Your task to perform on an android device: see tabs open on other devices in the chrome app Image 0: 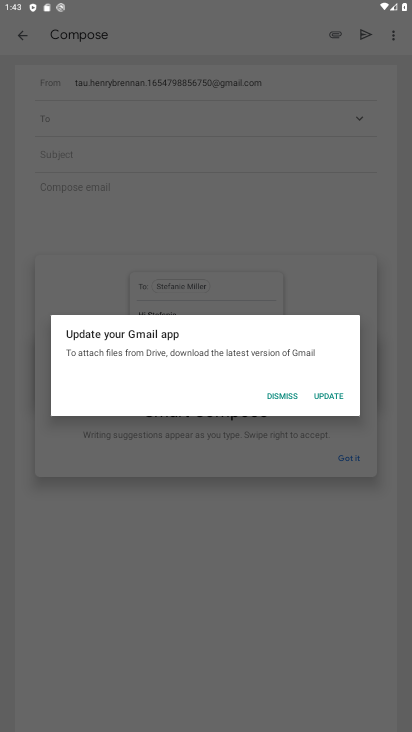
Step 0: press home button
Your task to perform on an android device: see tabs open on other devices in the chrome app Image 1: 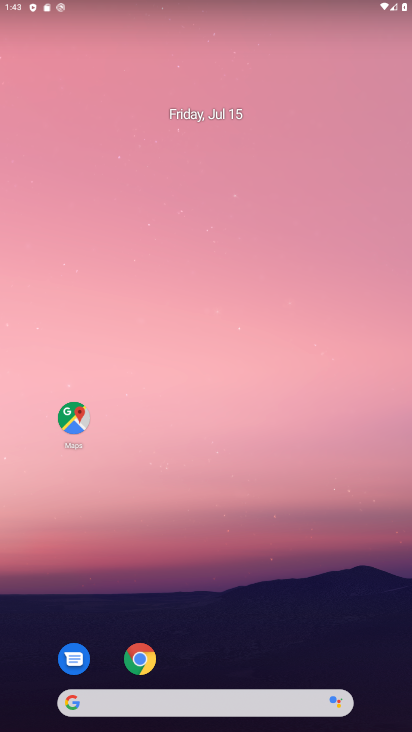
Step 1: drag from (138, 691) to (161, 373)
Your task to perform on an android device: see tabs open on other devices in the chrome app Image 2: 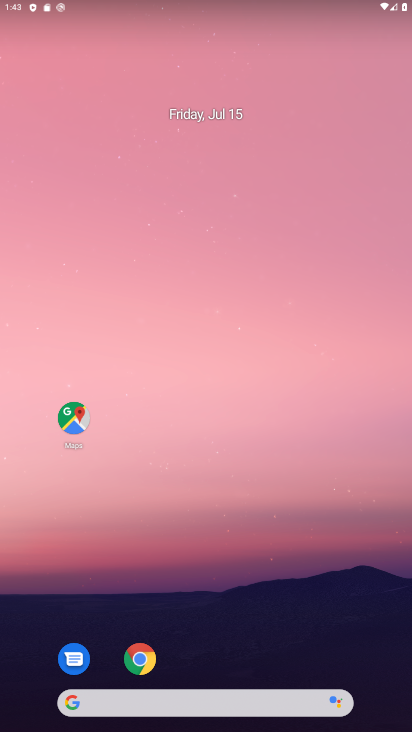
Step 2: click (154, 659)
Your task to perform on an android device: see tabs open on other devices in the chrome app Image 3: 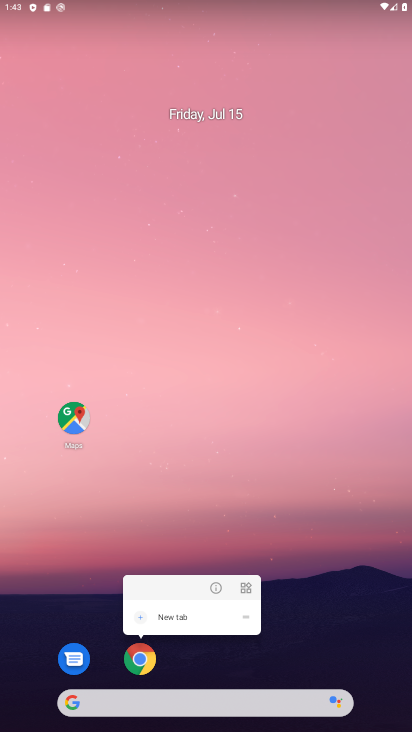
Step 3: click (136, 657)
Your task to perform on an android device: see tabs open on other devices in the chrome app Image 4: 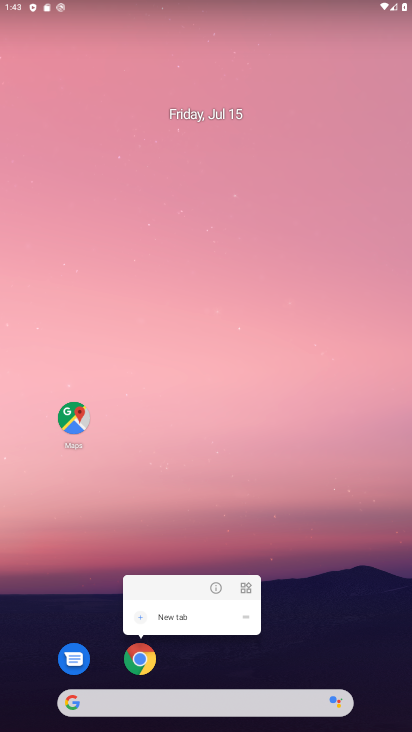
Step 4: click (140, 663)
Your task to perform on an android device: see tabs open on other devices in the chrome app Image 5: 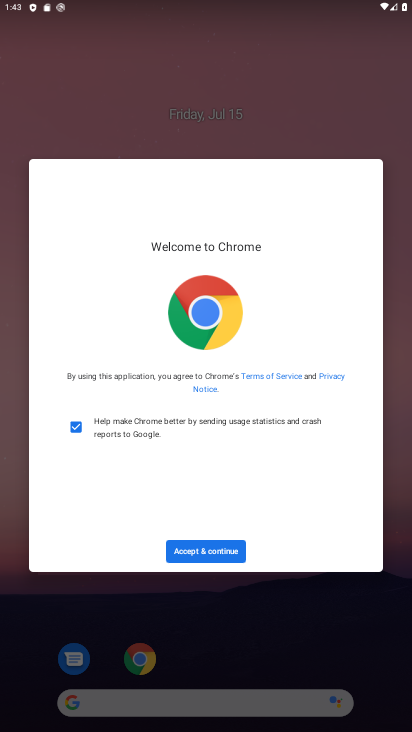
Step 5: click (202, 546)
Your task to perform on an android device: see tabs open on other devices in the chrome app Image 6: 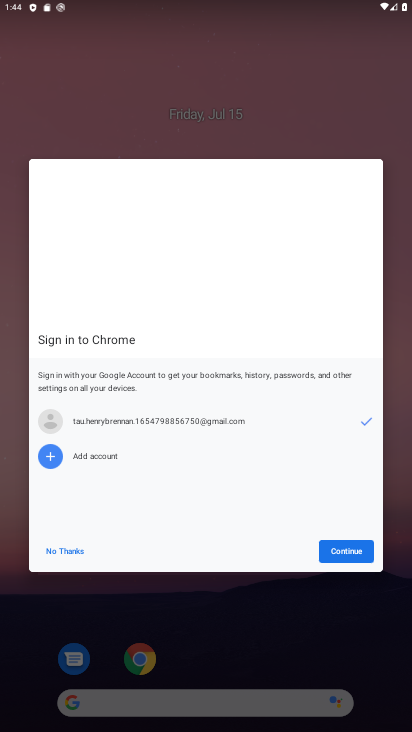
Step 6: click (327, 550)
Your task to perform on an android device: see tabs open on other devices in the chrome app Image 7: 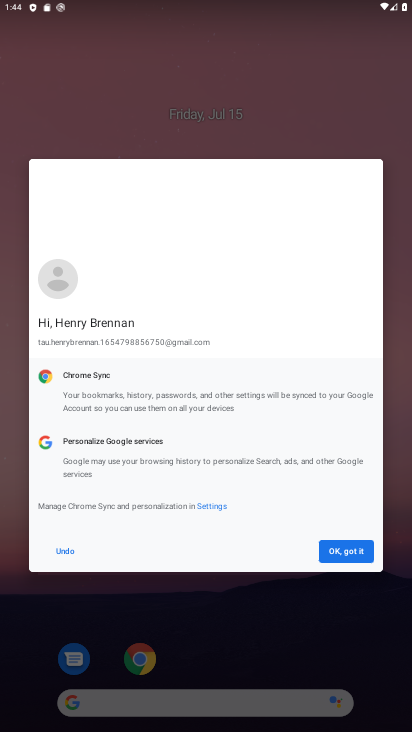
Step 7: click (327, 550)
Your task to perform on an android device: see tabs open on other devices in the chrome app Image 8: 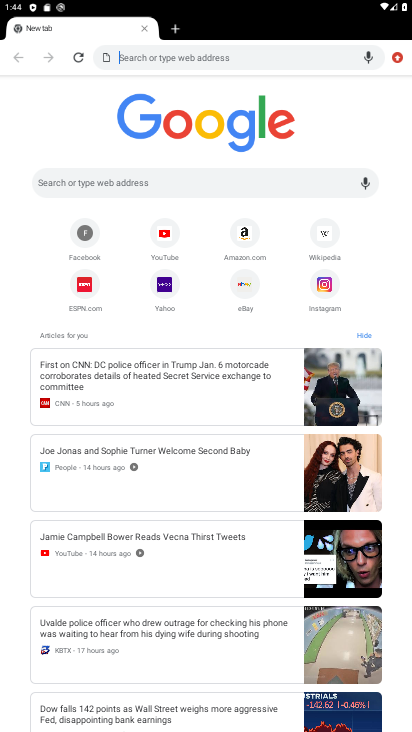
Step 8: task complete